Your task to perform on an android device: open app "Microsoft Authenticator" Image 0: 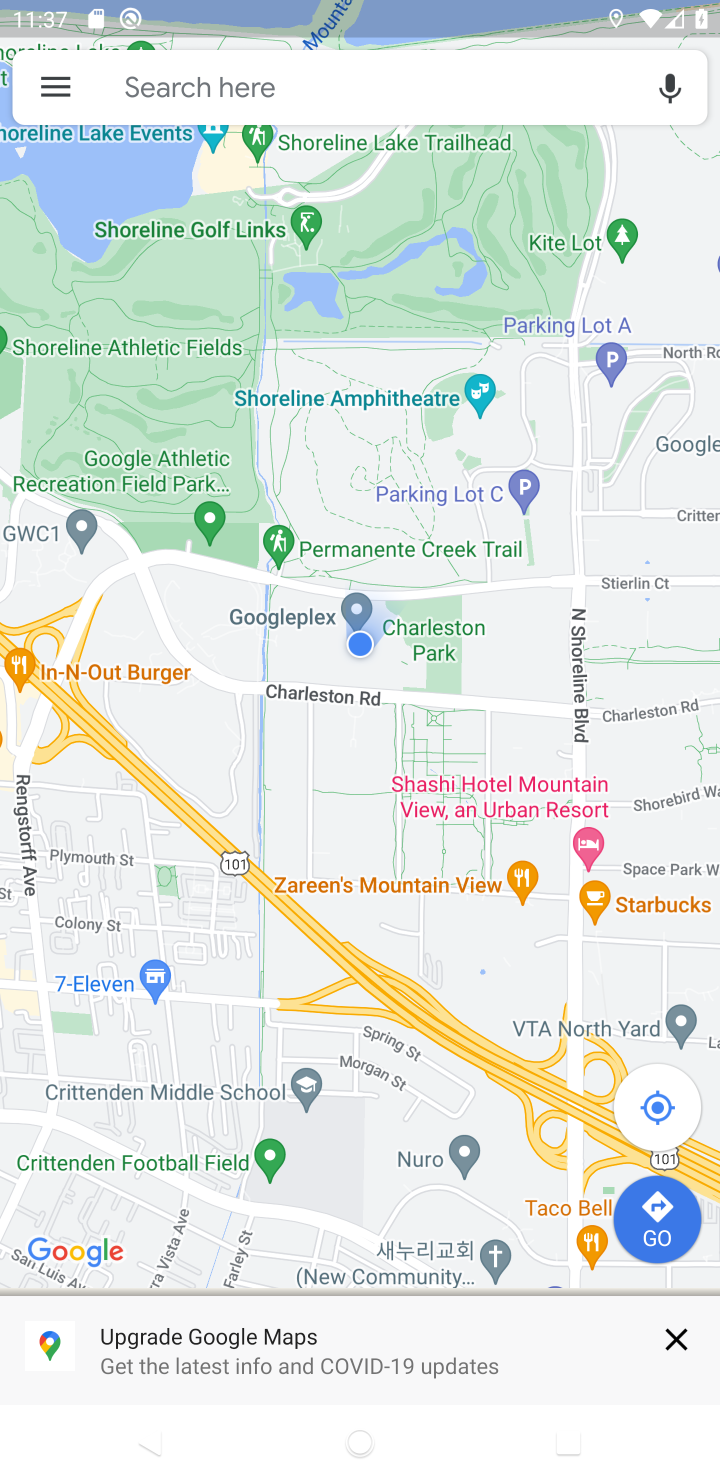
Step 0: press home button
Your task to perform on an android device: open app "Microsoft Authenticator" Image 1: 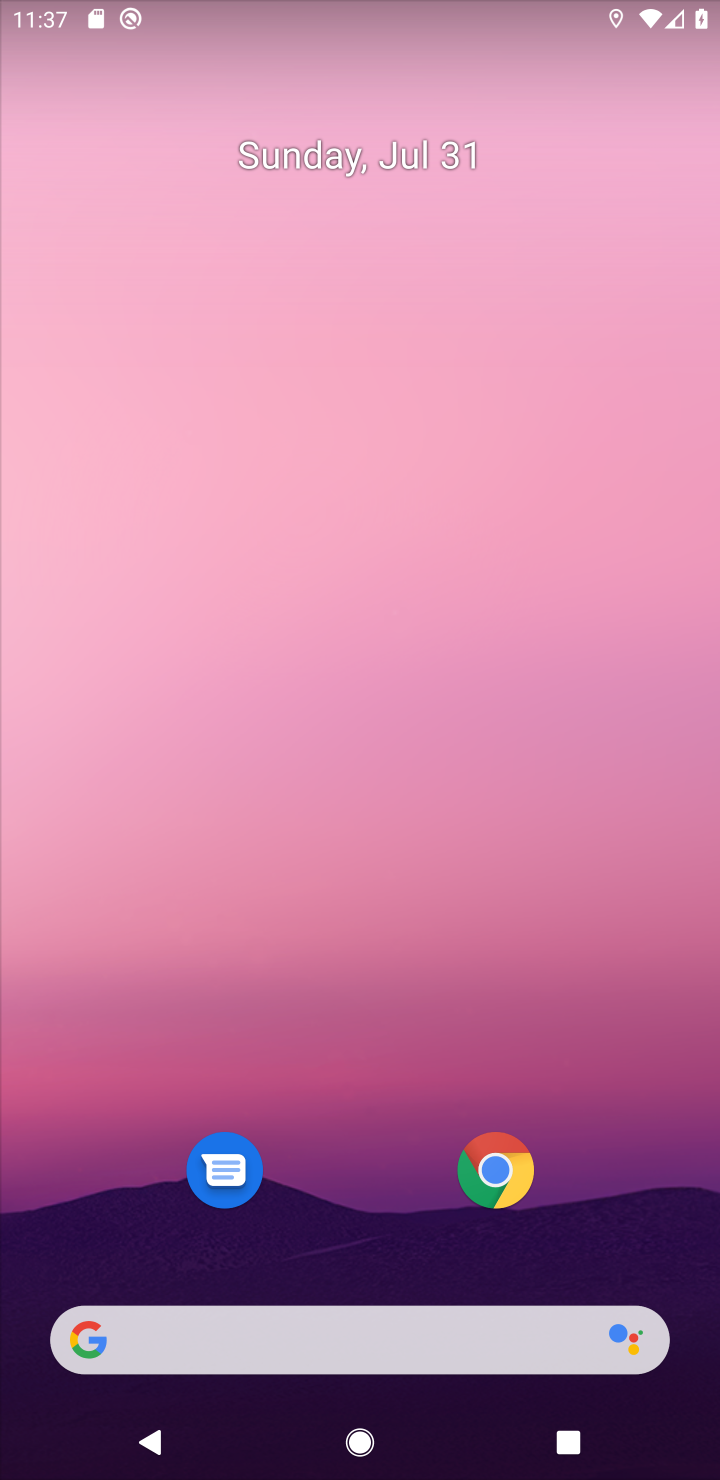
Step 1: drag from (590, 458) to (460, 81)
Your task to perform on an android device: open app "Microsoft Authenticator" Image 2: 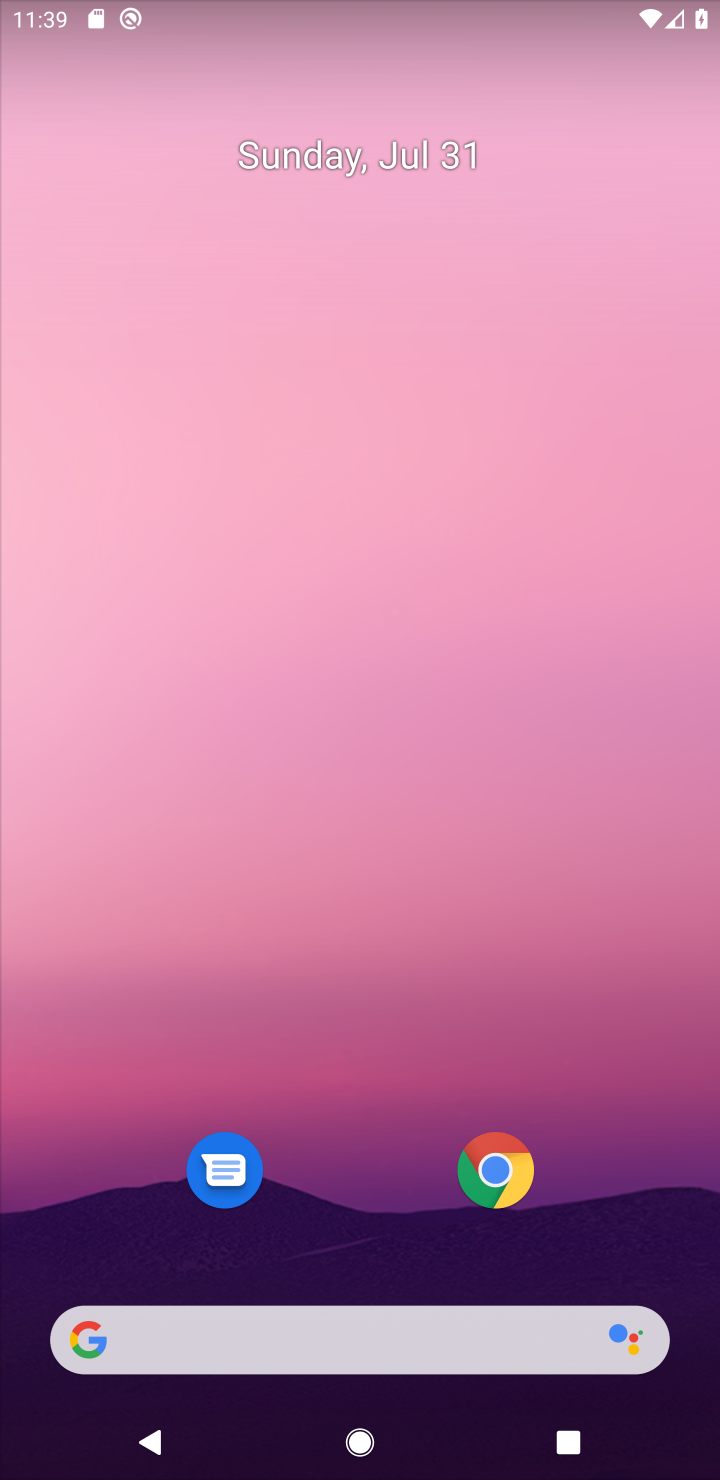
Step 2: drag from (484, 340) to (380, 0)
Your task to perform on an android device: open app "Microsoft Authenticator" Image 3: 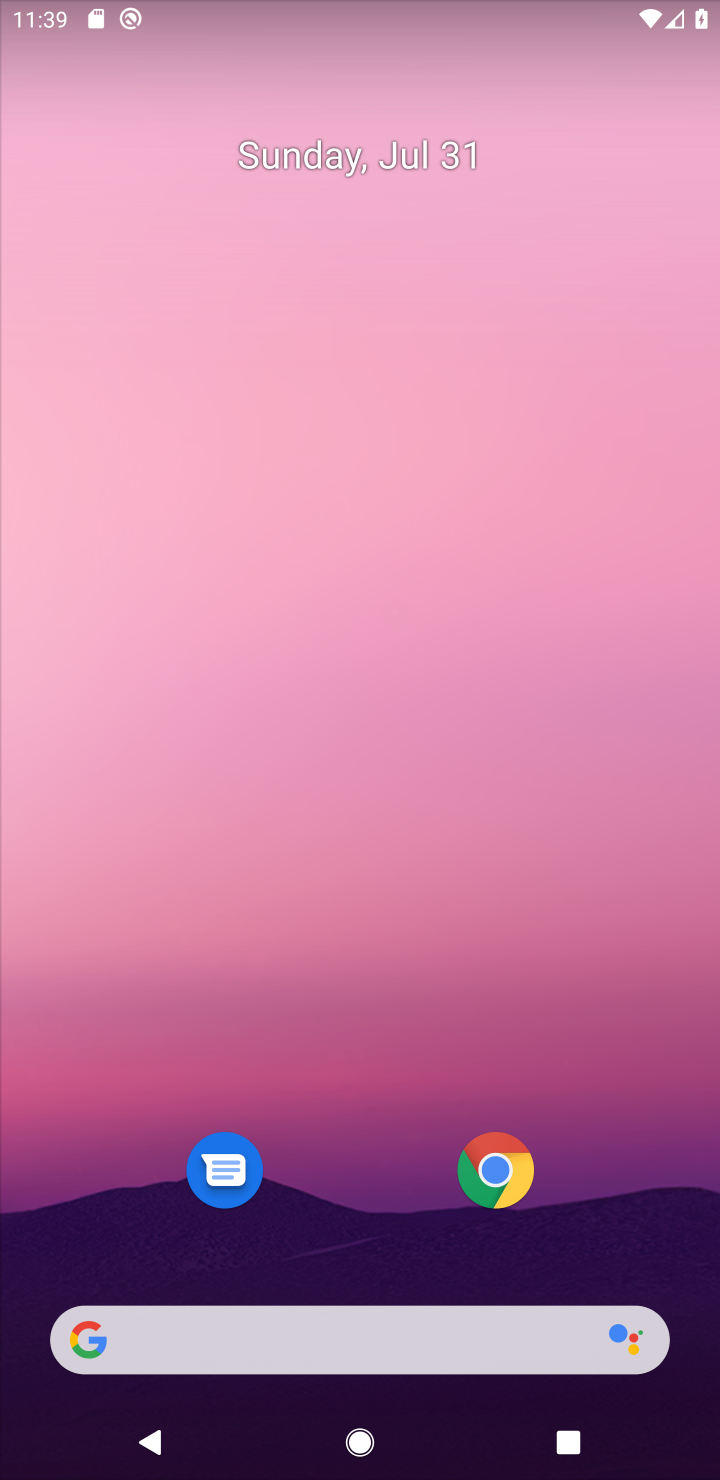
Step 3: drag from (631, 1156) to (528, 1)
Your task to perform on an android device: open app "Microsoft Authenticator" Image 4: 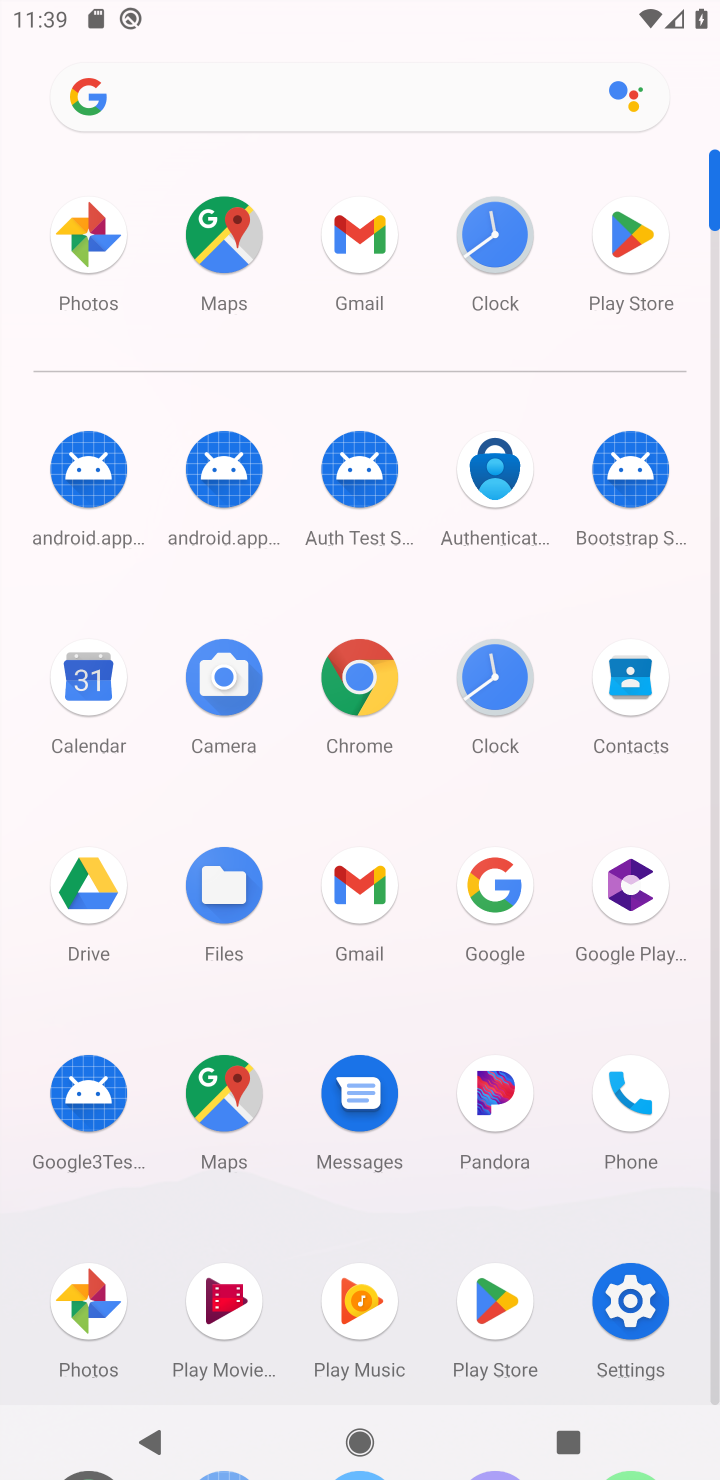
Step 4: click (619, 282)
Your task to perform on an android device: open app "Microsoft Authenticator" Image 5: 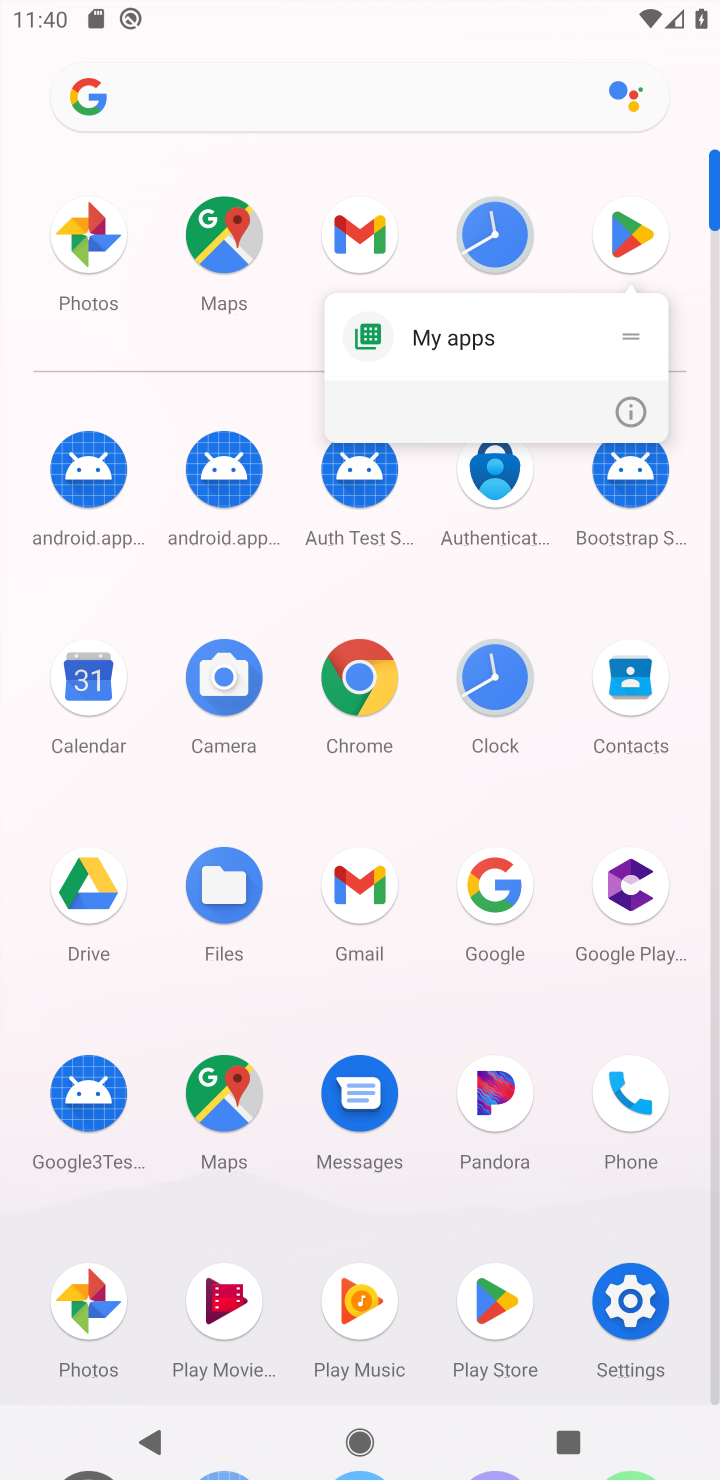
Step 5: click (656, 212)
Your task to perform on an android device: open app "Microsoft Authenticator" Image 6: 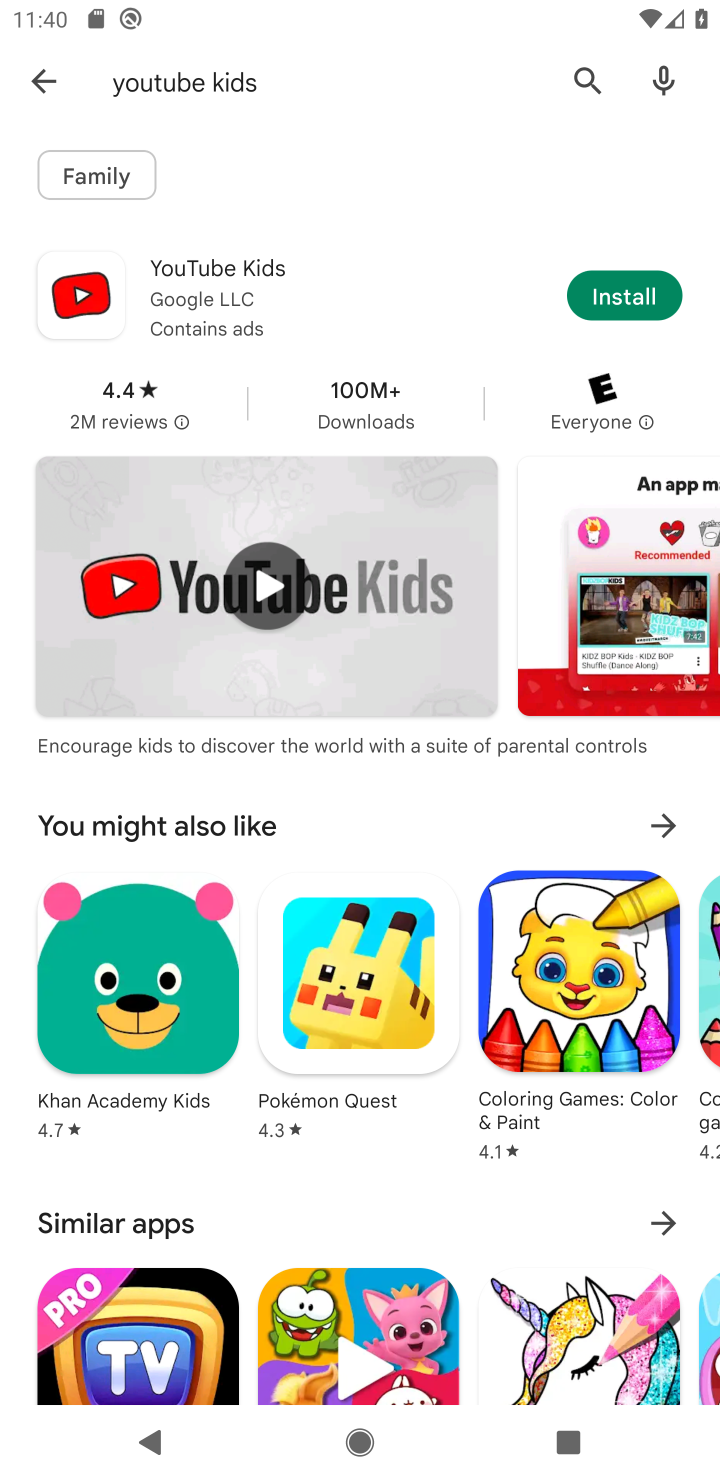
Step 6: press back button
Your task to perform on an android device: open app "Microsoft Authenticator" Image 7: 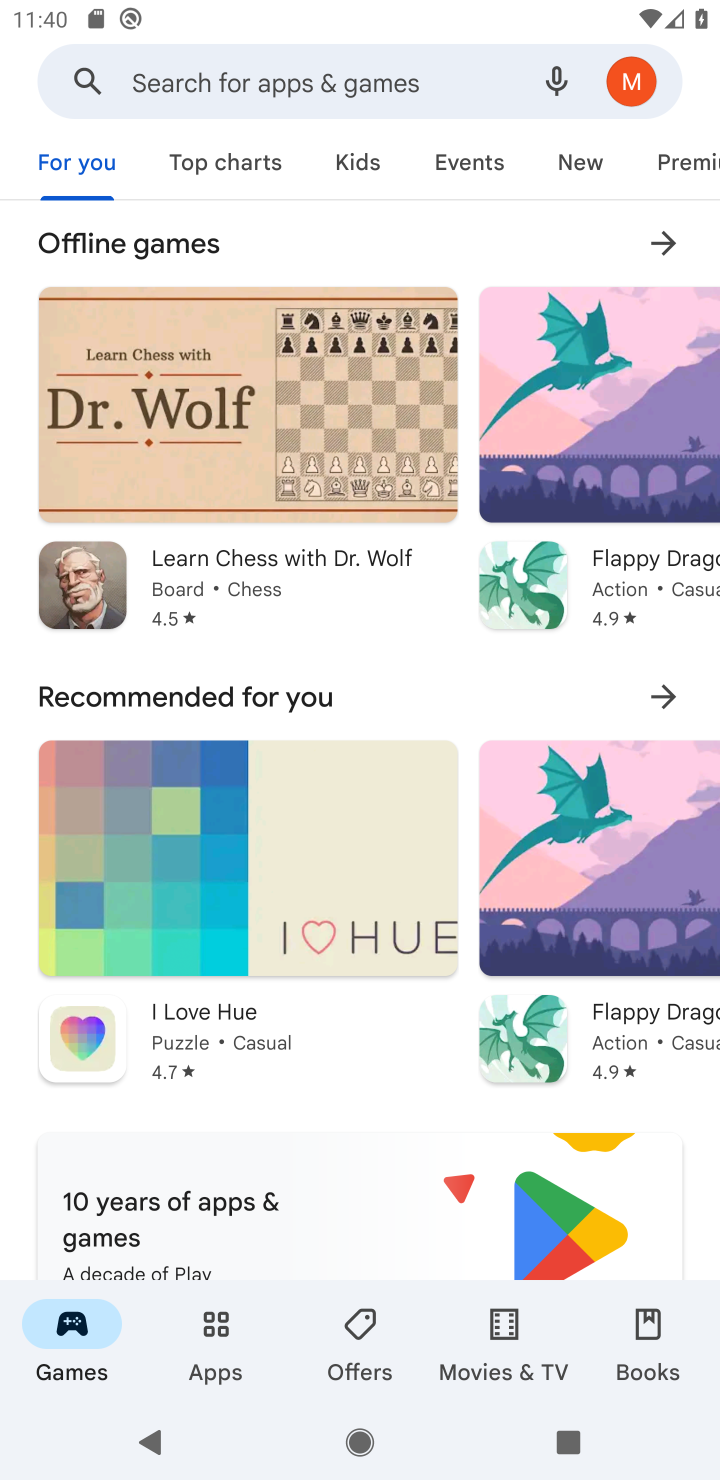
Step 7: click (200, 79)
Your task to perform on an android device: open app "Microsoft Authenticator" Image 8: 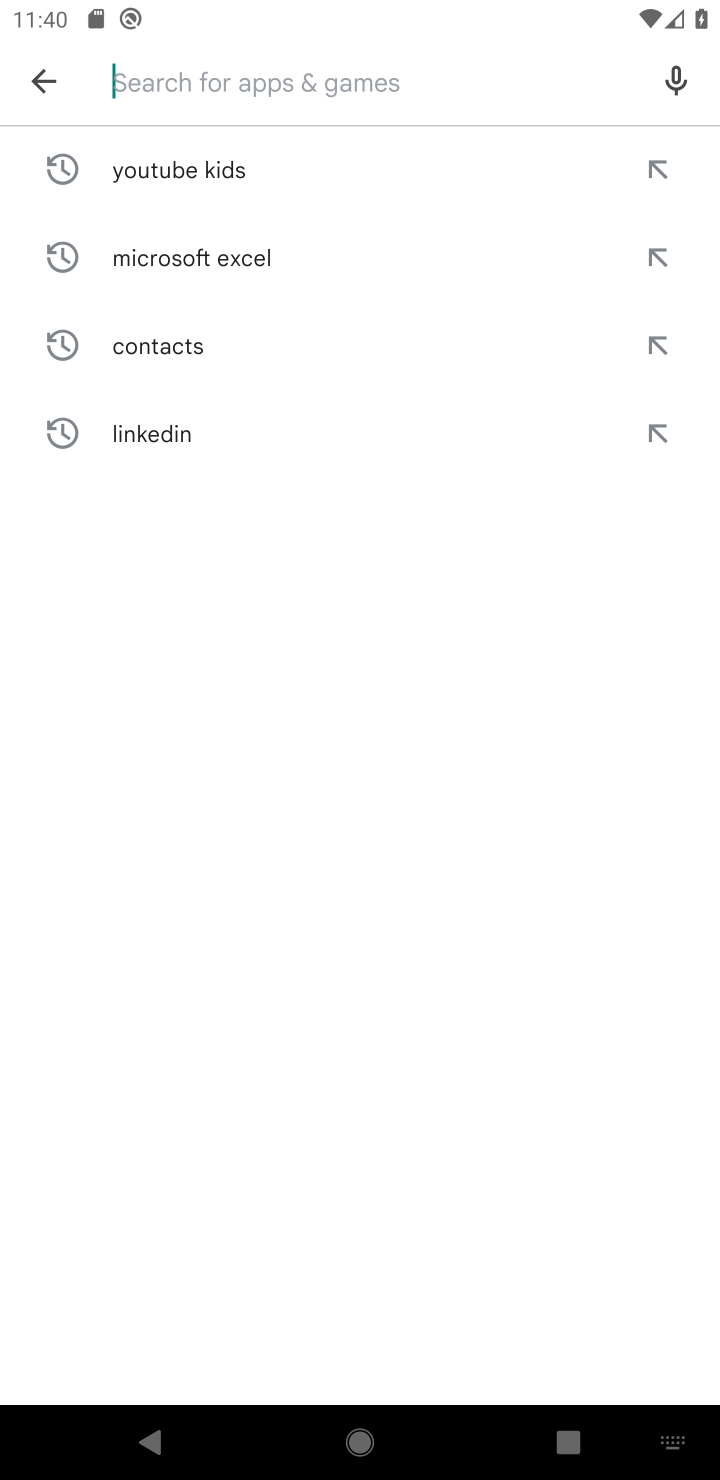
Step 8: type "Microsoft Authenticator"
Your task to perform on an android device: open app "Microsoft Authenticator" Image 9: 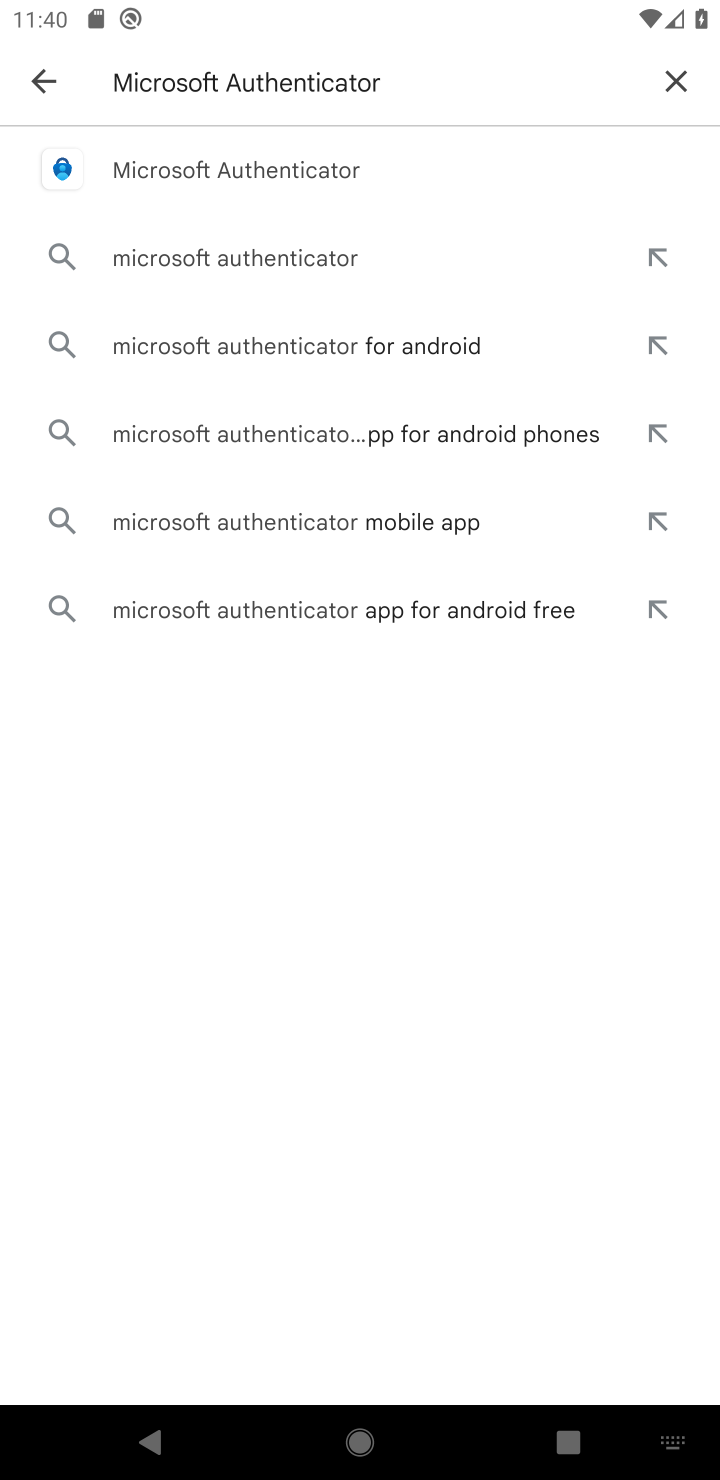
Step 9: click (261, 181)
Your task to perform on an android device: open app "Microsoft Authenticator" Image 10: 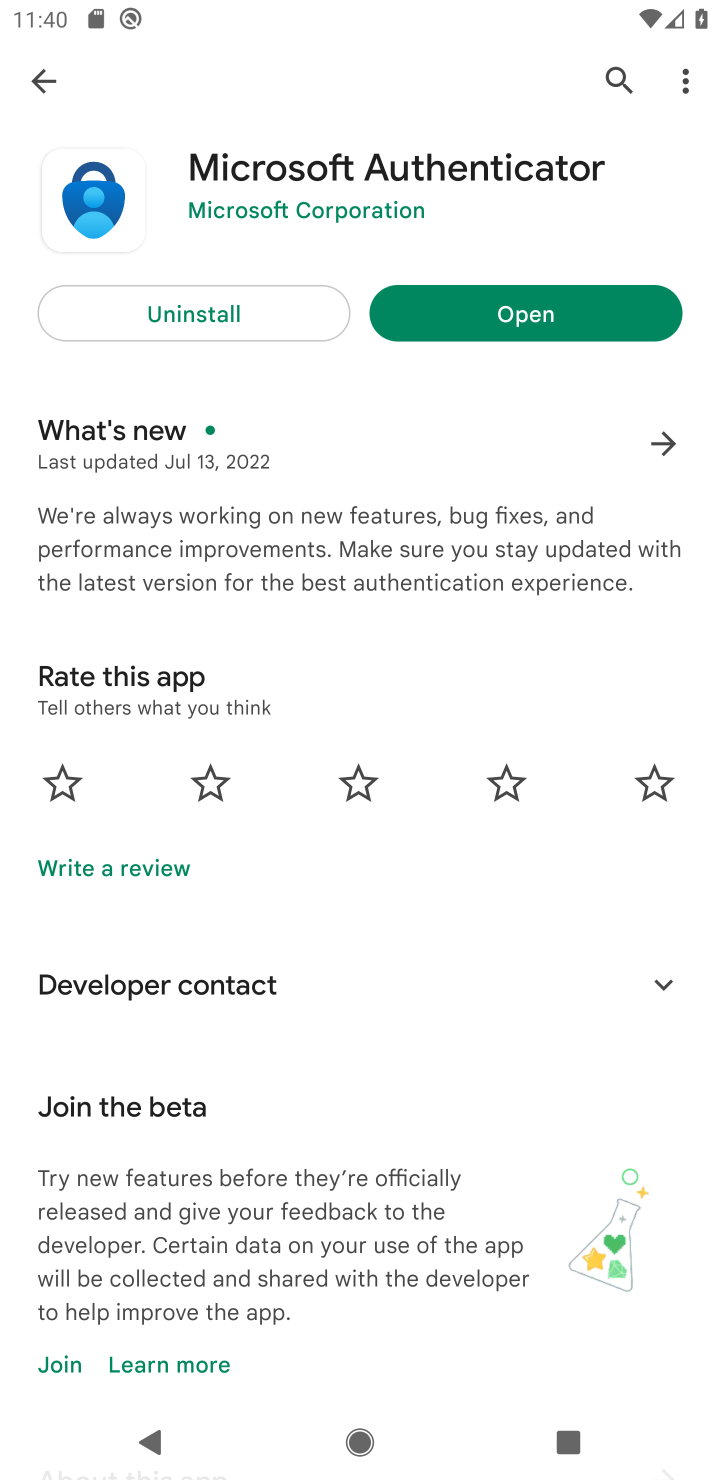
Step 10: click (549, 299)
Your task to perform on an android device: open app "Microsoft Authenticator" Image 11: 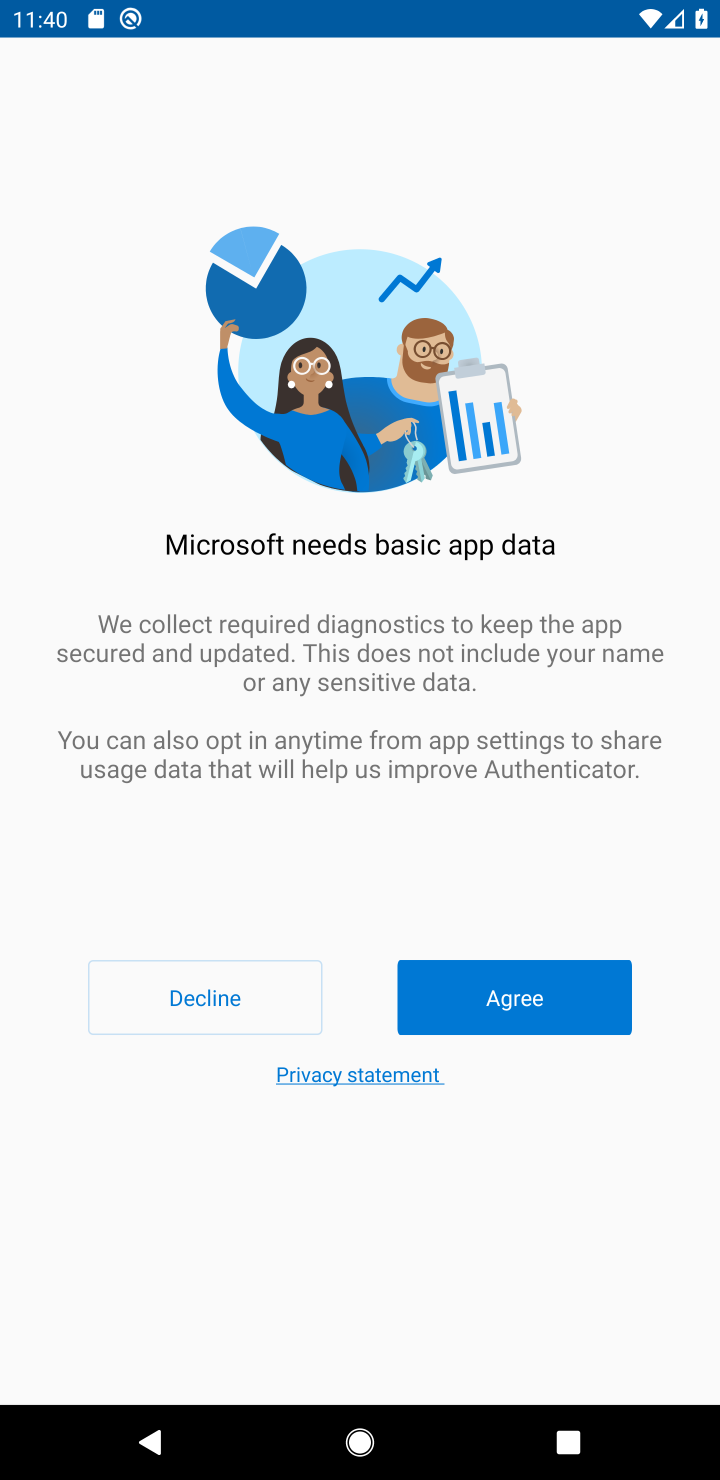
Step 11: task complete